Your task to perform on an android device: empty trash in the gmail app Image 0: 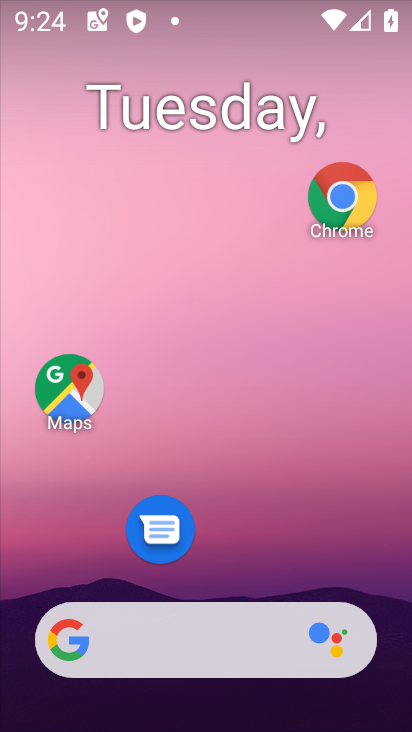
Step 0: drag from (280, 580) to (193, 0)
Your task to perform on an android device: empty trash in the gmail app Image 1: 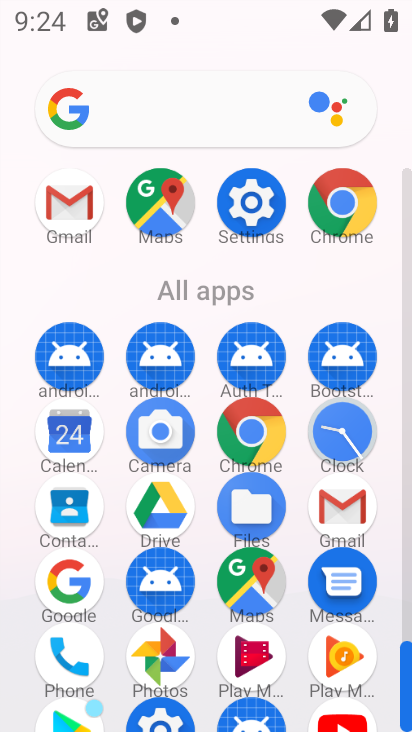
Step 1: click (79, 209)
Your task to perform on an android device: empty trash in the gmail app Image 2: 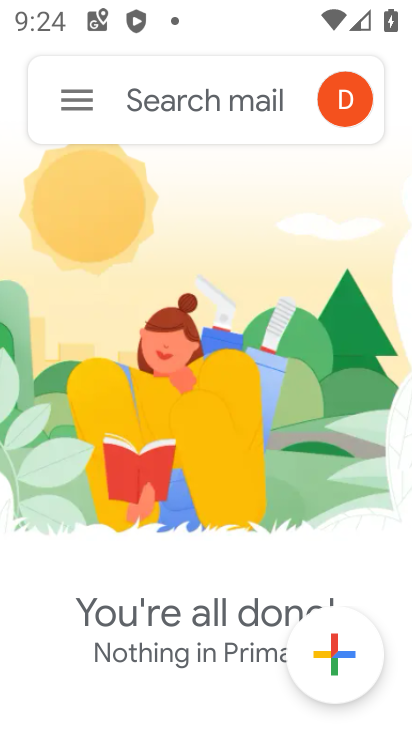
Step 2: click (72, 95)
Your task to perform on an android device: empty trash in the gmail app Image 3: 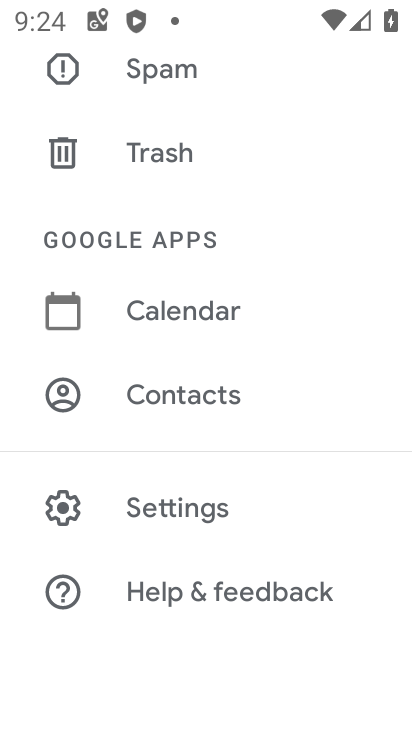
Step 3: click (166, 149)
Your task to perform on an android device: empty trash in the gmail app Image 4: 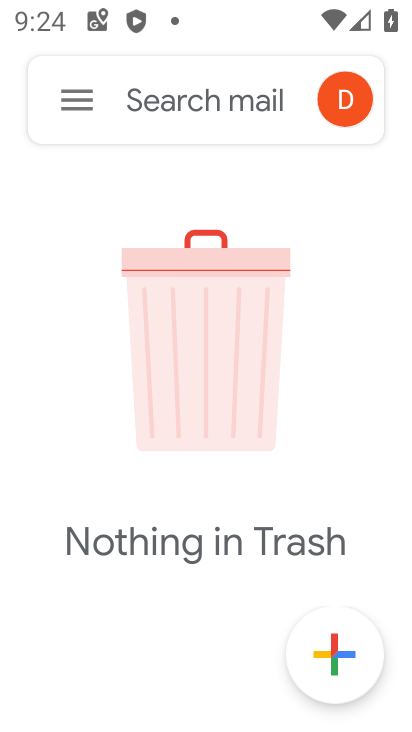
Step 4: task complete